Your task to perform on an android device: Open Chrome and go to the settings page Image 0: 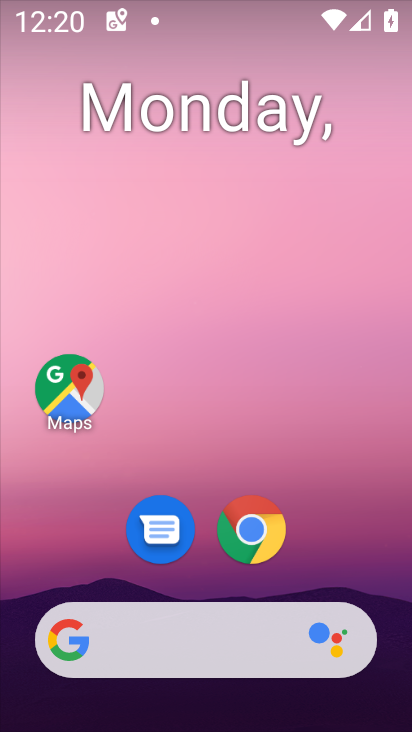
Step 0: click (258, 552)
Your task to perform on an android device: Open Chrome and go to the settings page Image 1: 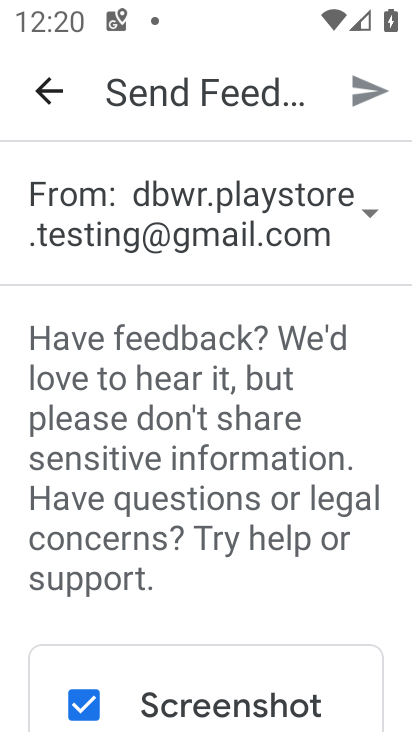
Step 1: press home button
Your task to perform on an android device: Open Chrome and go to the settings page Image 2: 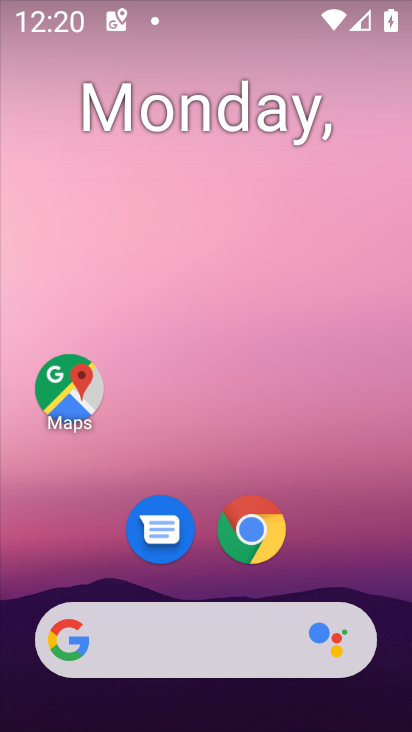
Step 2: click (252, 525)
Your task to perform on an android device: Open Chrome and go to the settings page Image 3: 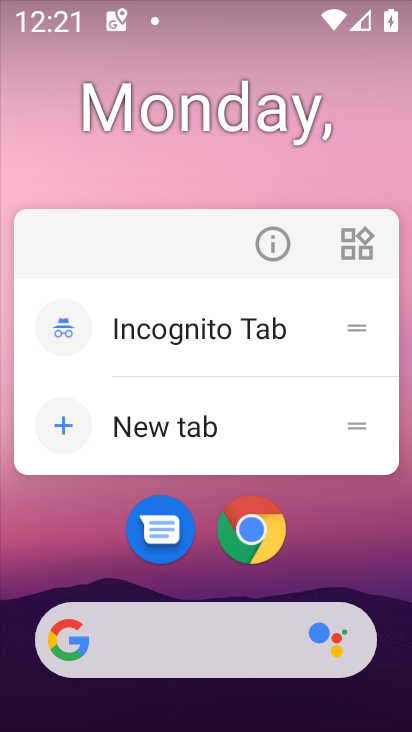
Step 3: click (261, 528)
Your task to perform on an android device: Open Chrome and go to the settings page Image 4: 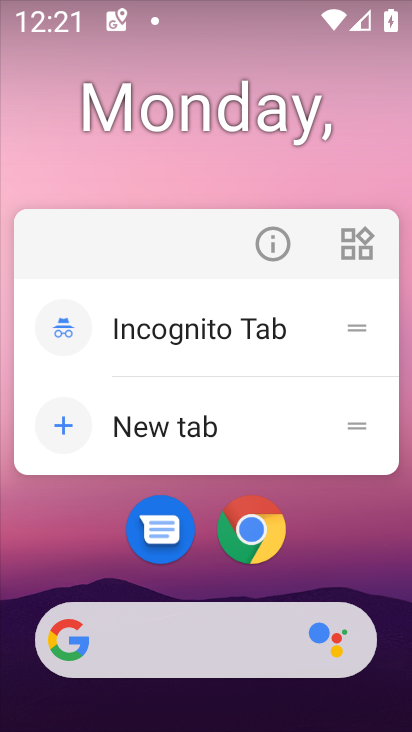
Step 4: click (251, 566)
Your task to perform on an android device: Open Chrome and go to the settings page Image 5: 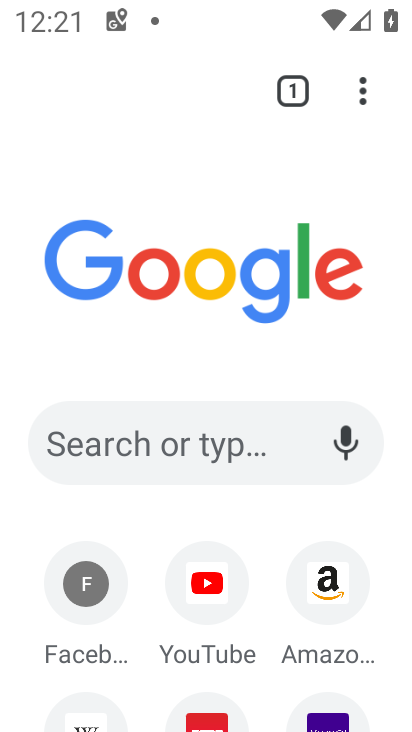
Step 5: click (353, 97)
Your task to perform on an android device: Open Chrome and go to the settings page Image 6: 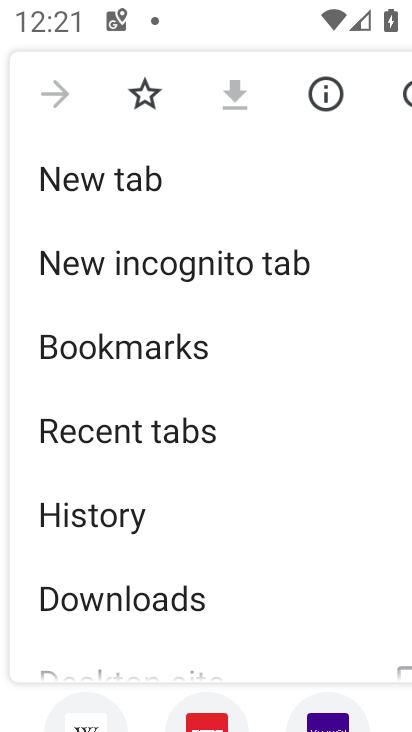
Step 6: drag from (157, 539) to (103, 0)
Your task to perform on an android device: Open Chrome and go to the settings page Image 7: 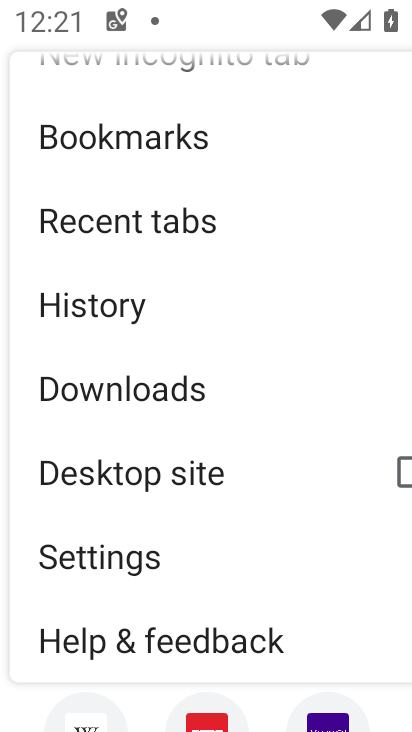
Step 7: click (137, 564)
Your task to perform on an android device: Open Chrome and go to the settings page Image 8: 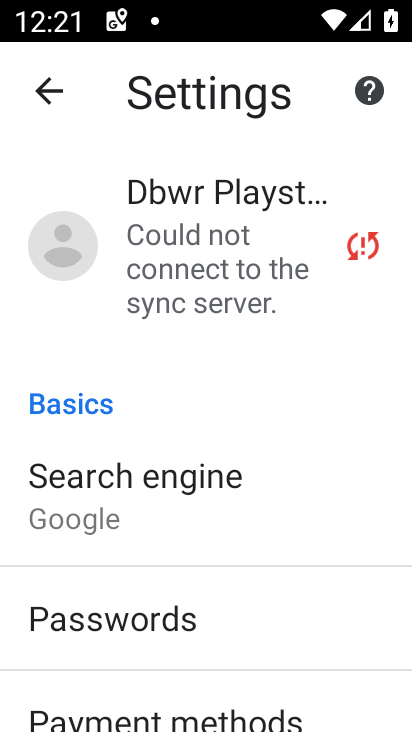
Step 8: task complete